Your task to perform on an android device: move a message to another label in the gmail app Image 0: 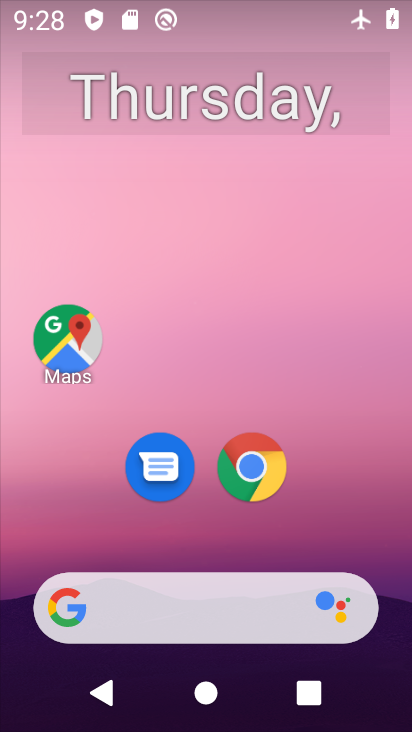
Step 0: drag from (369, 519) to (215, 29)
Your task to perform on an android device: move a message to another label in the gmail app Image 1: 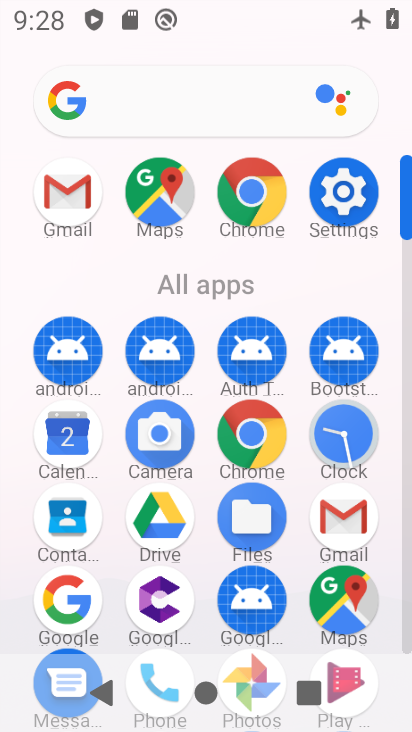
Step 1: click (345, 542)
Your task to perform on an android device: move a message to another label in the gmail app Image 2: 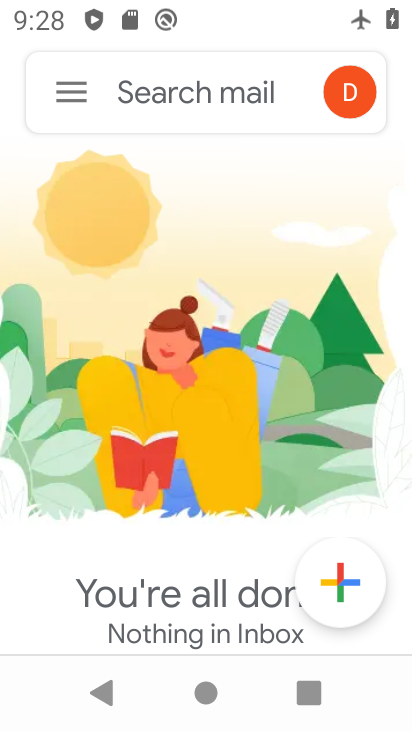
Step 2: task complete